Your task to perform on an android device: allow cookies in the chrome app Image 0: 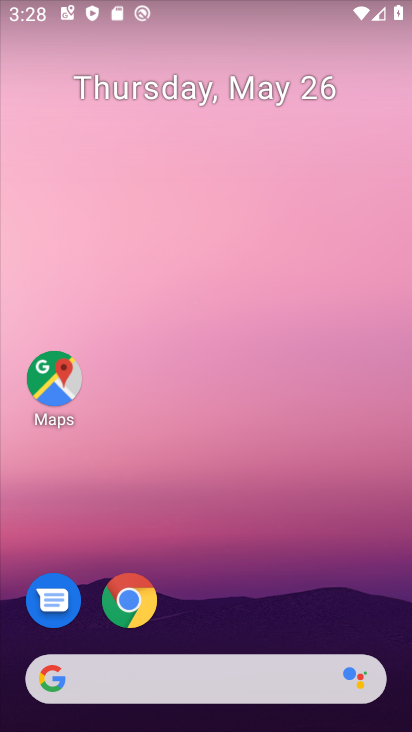
Step 0: drag from (283, 518) to (241, 59)
Your task to perform on an android device: allow cookies in the chrome app Image 1: 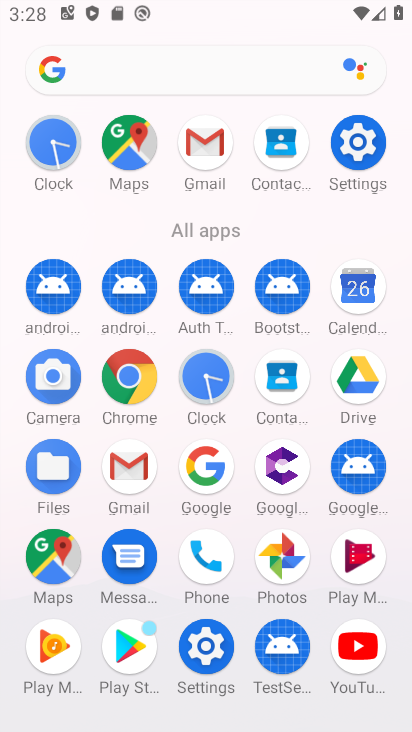
Step 1: drag from (15, 563) to (11, 228)
Your task to perform on an android device: allow cookies in the chrome app Image 2: 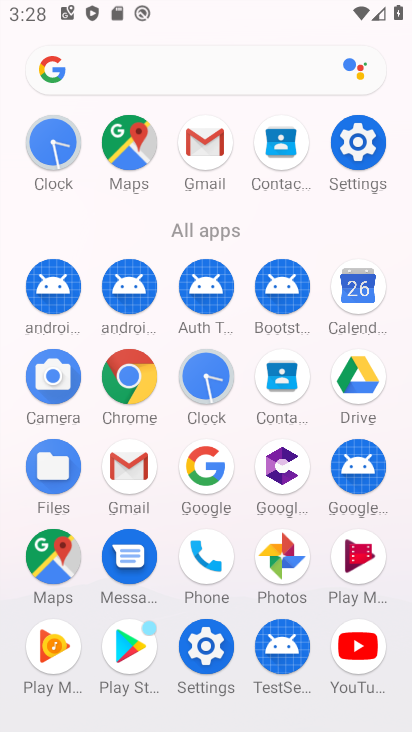
Step 2: click (129, 375)
Your task to perform on an android device: allow cookies in the chrome app Image 3: 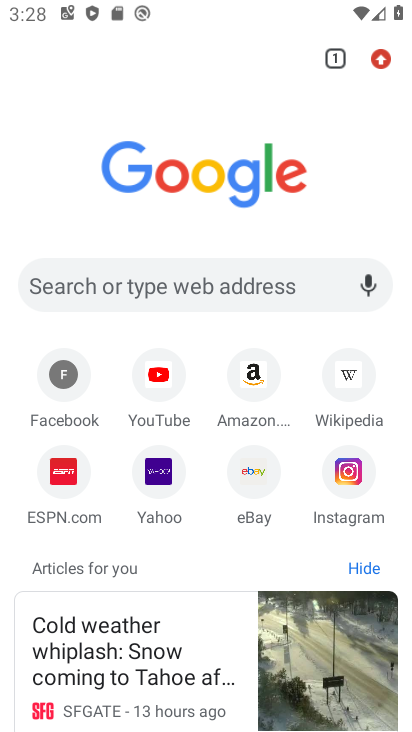
Step 3: drag from (380, 52) to (212, 558)
Your task to perform on an android device: allow cookies in the chrome app Image 4: 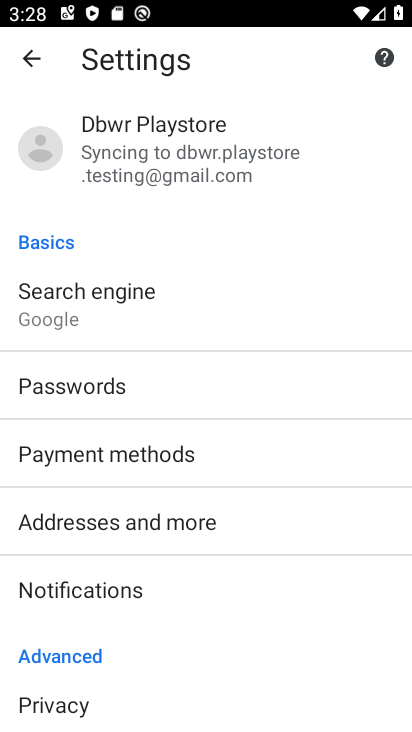
Step 4: drag from (211, 617) to (246, 210)
Your task to perform on an android device: allow cookies in the chrome app Image 5: 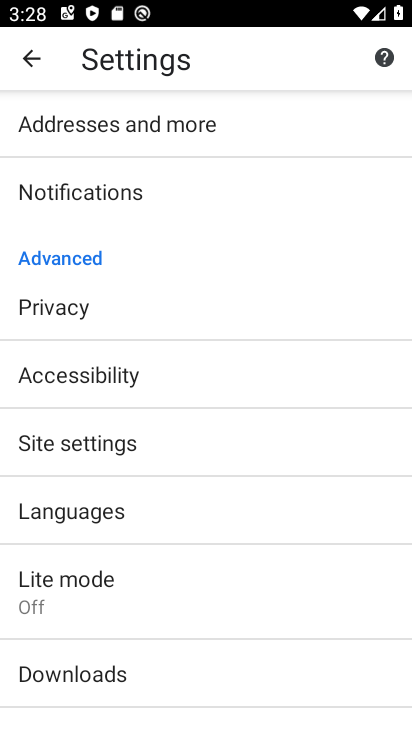
Step 5: drag from (207, 517) to (231, 214)
Your task to perform on an android device: allow cookies in the chrome app Image 6: 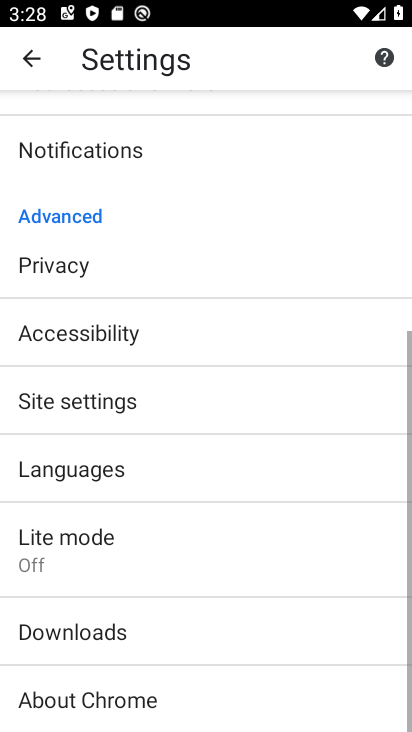
Step 6: drag from (277, 613) to (319, 178)
Your task to perform on an android device: allow cookies in the chrome app Image 7: 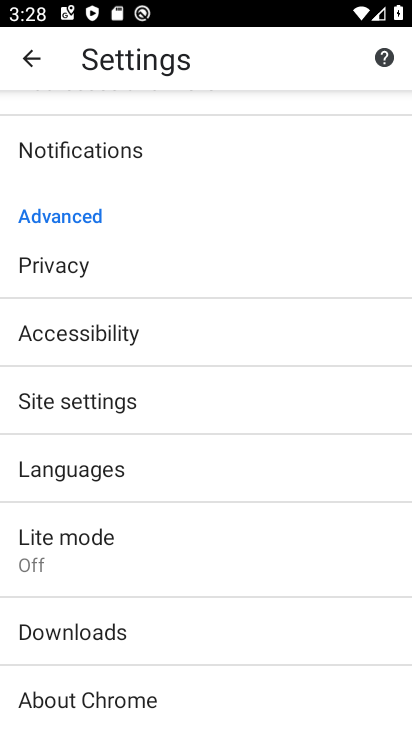
Step 7: click (114, 389)
Your task to perform on an android device: allow cookies in the chrome app Image 8: 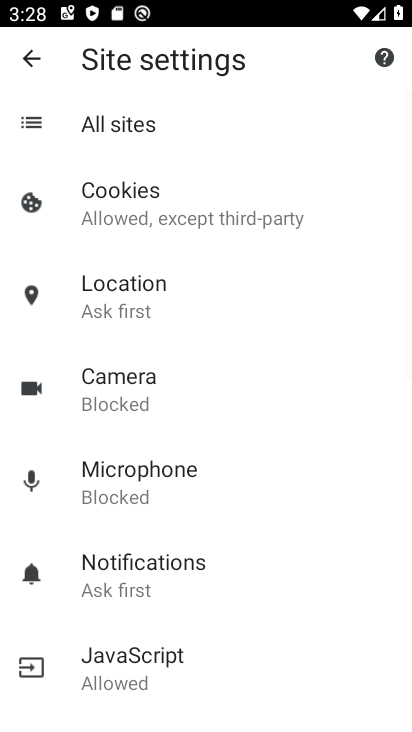
Step 8: click (204, 197)
Your task to perform on an android device: allow cookies in the chrome app Image 9: 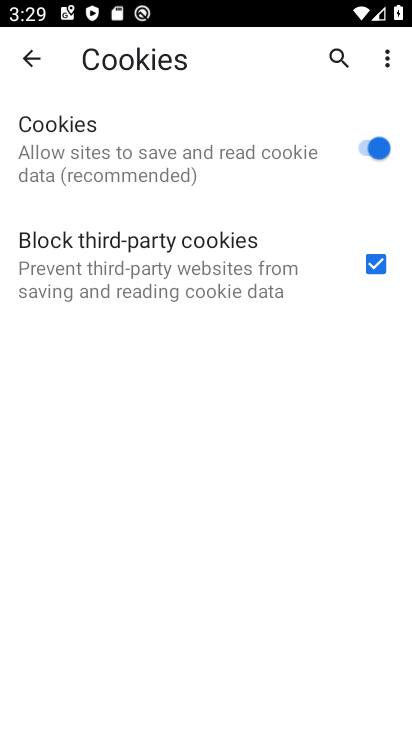
Step 9: task complete